Your task to perform on an android device: see creations saved in the google photos Image 0: 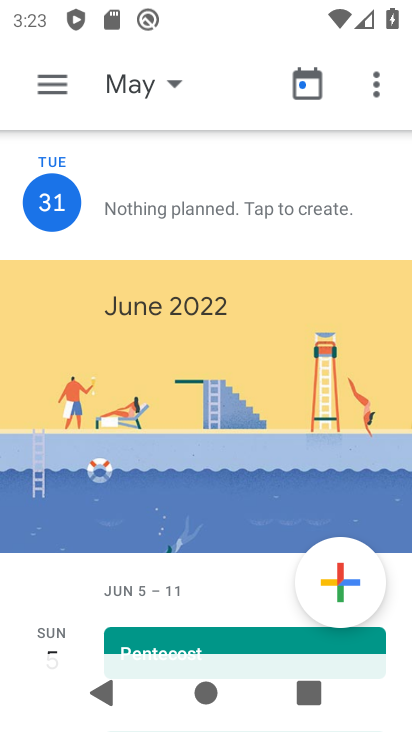
Step 0: press home button
Your task to perform on an android device: see creations saved in the google photos Image 1: 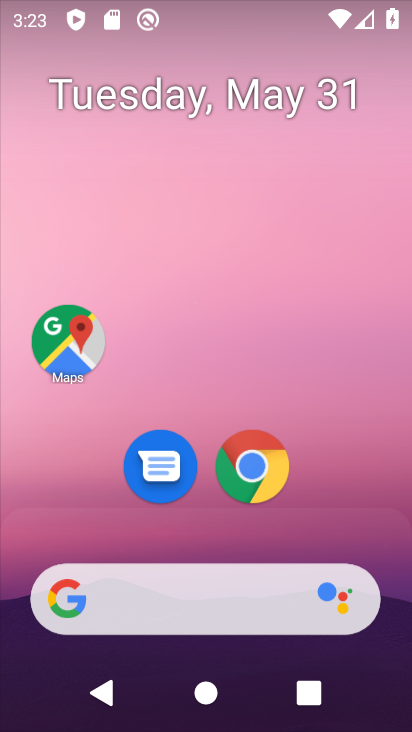
Step 1: drag from (170, 585) to (269, 11)
Your task to perform on an android device: see creations saved in the google photos Image 2: 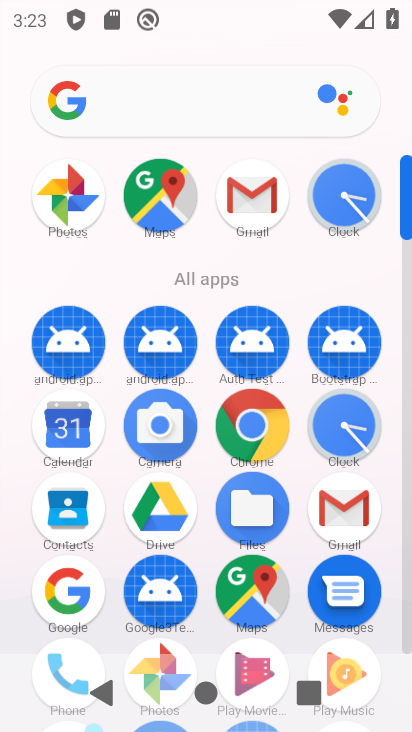
Step 2: drag from (144, 547) to (211, 262)
Your task to perform on an android device: see creations saved in the google photos Image 3: 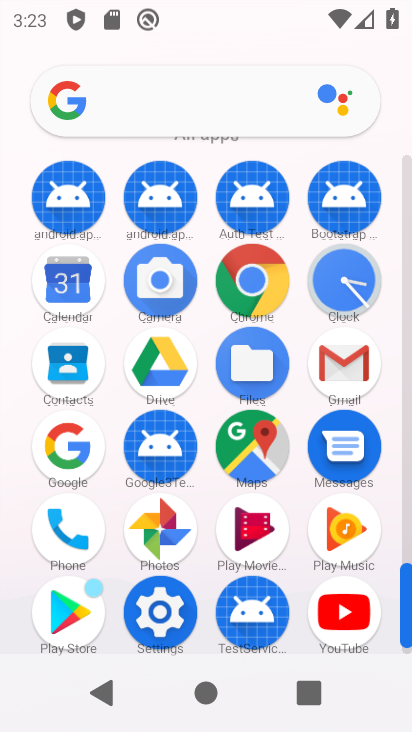
Step 3: click (171, 537)
Your task to perform on an android device: see creations saved in the google photos Image 4: 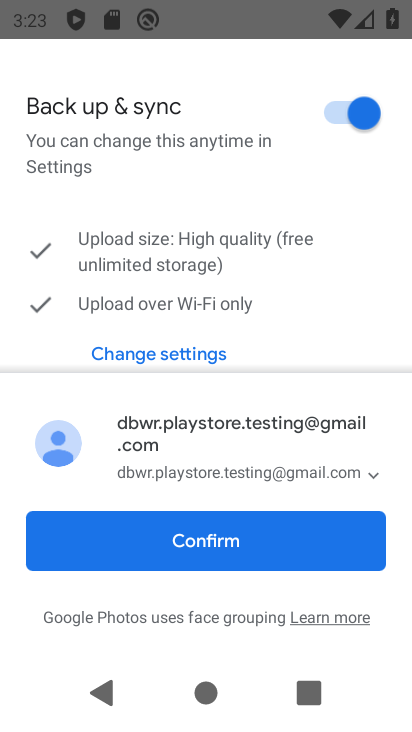
Step 4: click (192, 529)
Your task to perform on an android device: see creations saved in the google photos Image 5: 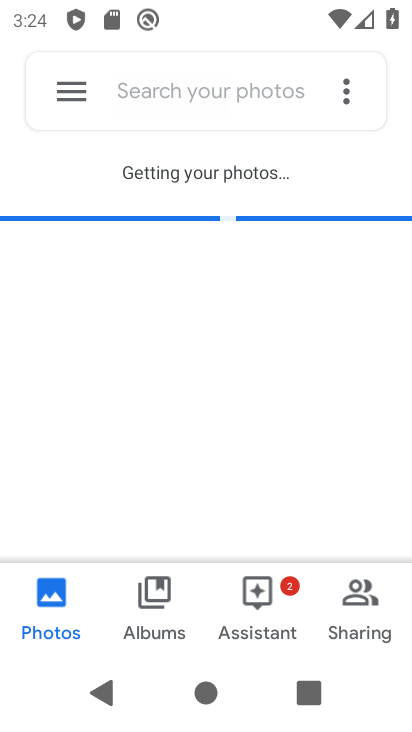
Step 5: click (231, 97)
Your task to perform on an android device: see creations saved in the google photos Image 6: 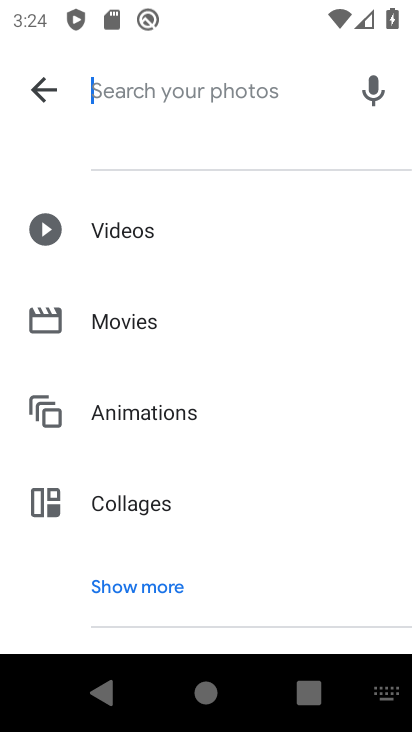
Step 6: click (149, 576)
Your task to perform on an android device: see creations saved in the google photos Image 7: 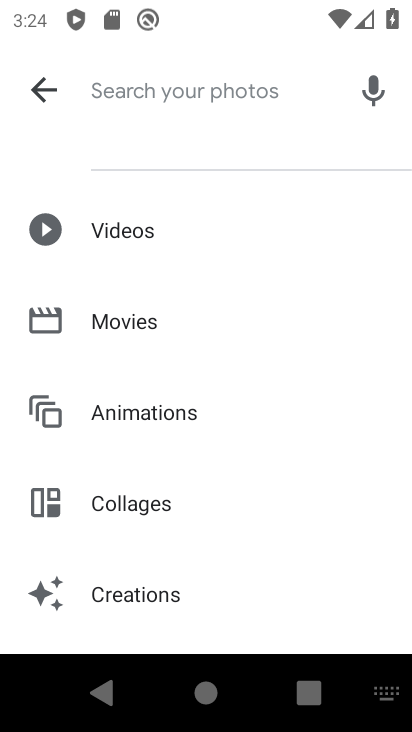
Step 7: click (167, 601)
Your task to perform on an android device: see creations saved in the google photos Image 8: 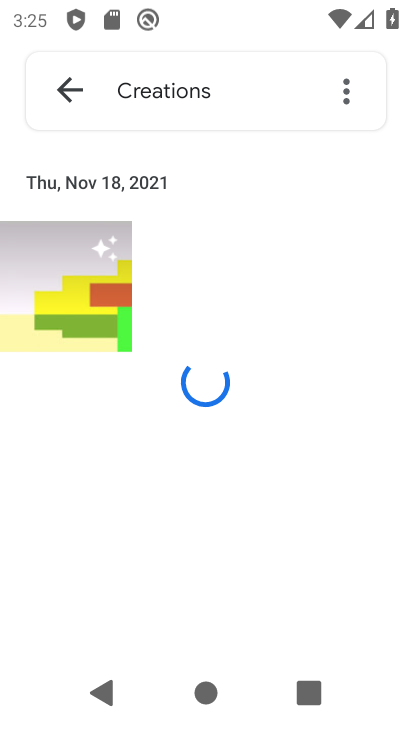
Step 8: task complete